Your task to perform on an android device: Go to Yahoo.com Image 0: 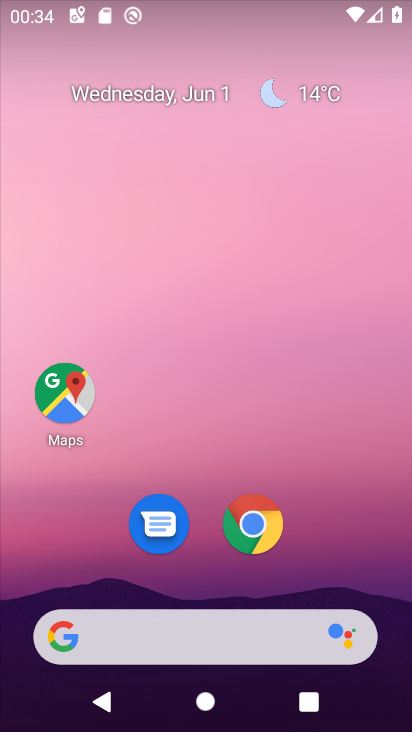
Step 0: click (288, 632)
Your task to perform on an android device: Go to Yahoo.com Image 1: 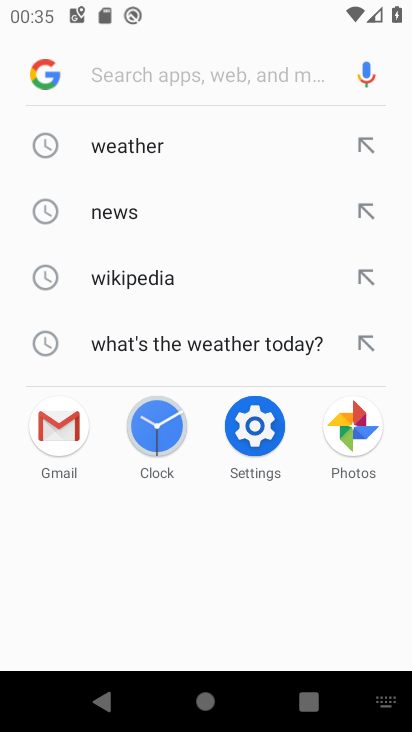
Step 1: type "yahoo.com"
Your task to perform on an android device: Go to Yahoo.com Image 2: 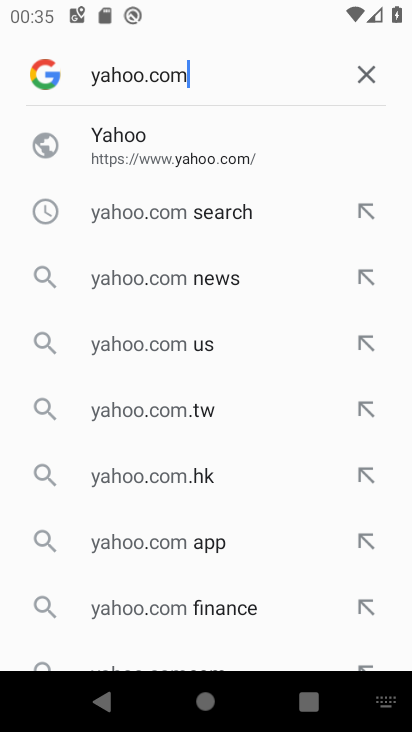
Step 2: click (135, 148)
Your task to perform on an android device: Go to Yahoo.com Image 3: 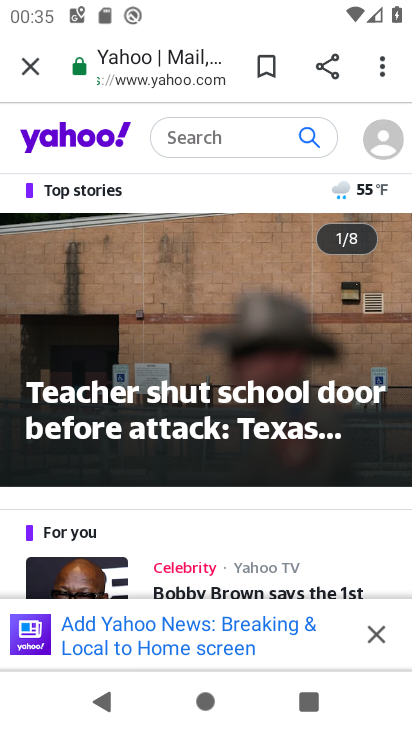
Step 3: task complete